Your task to perform on an android device: Search for Italian restaurants on Maps Image 0: 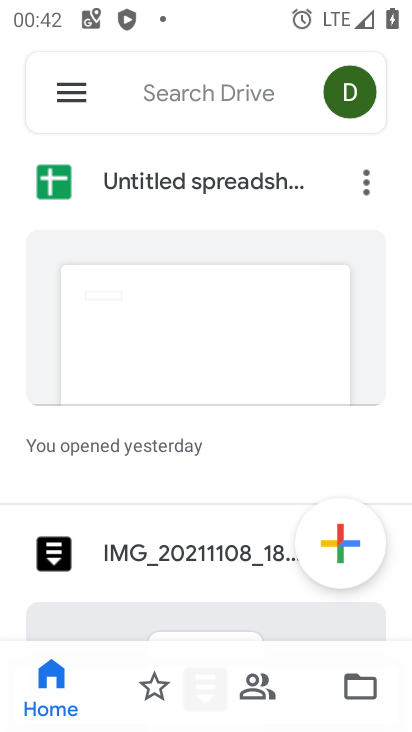
Step 0: press home button
Your task to perform on an android device: Search for Italian restaurants on Maps Image 1: 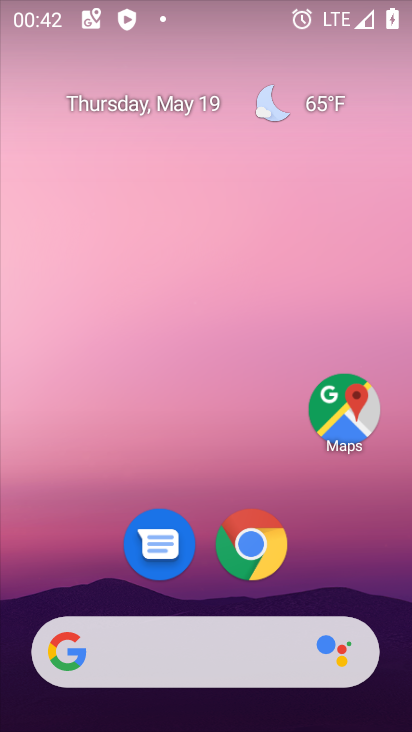
Step 1: drag from (372, 574) to (374, 122)
Your task to perform on an android device: Search for Italian restaurants on Maps Image 2: 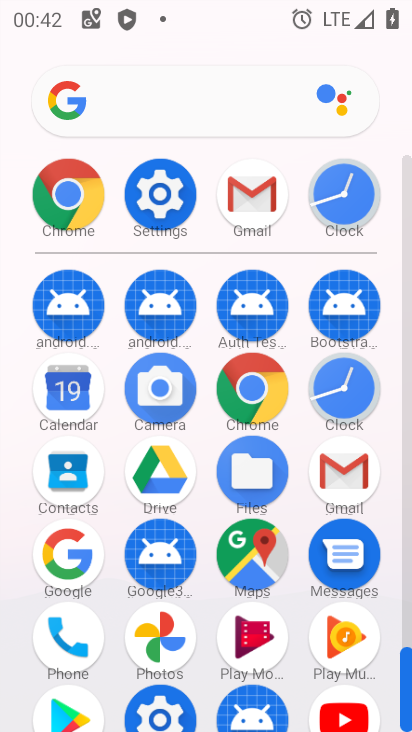
Step 2: click (265, 571)
Your task to perform on an android device: Search for Italian restaurants on Maps Image 3: 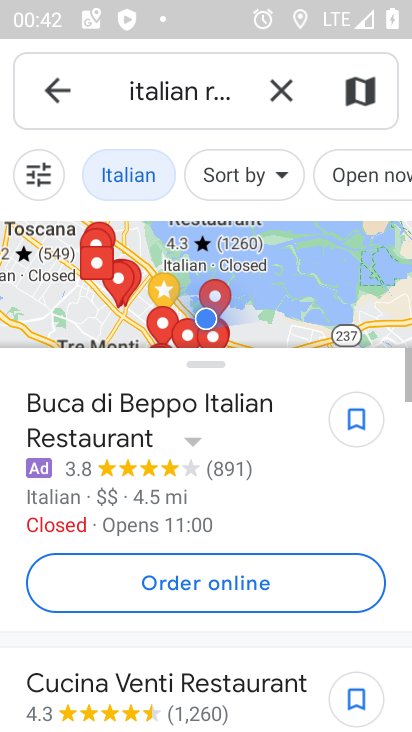
Step 3: task complete